Your task to perform on an android device: open chrome and create a bookmark for the current page Image 0: 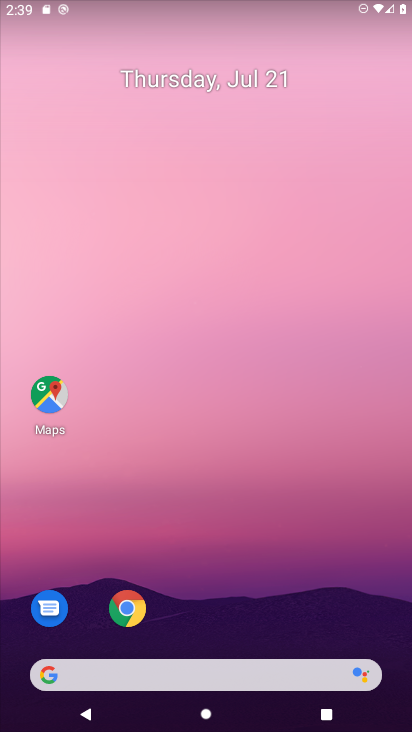
Step 0: click (124, 609)
Your task to perform on an android device: open chrome and create a bookmark for the current page Image 1: 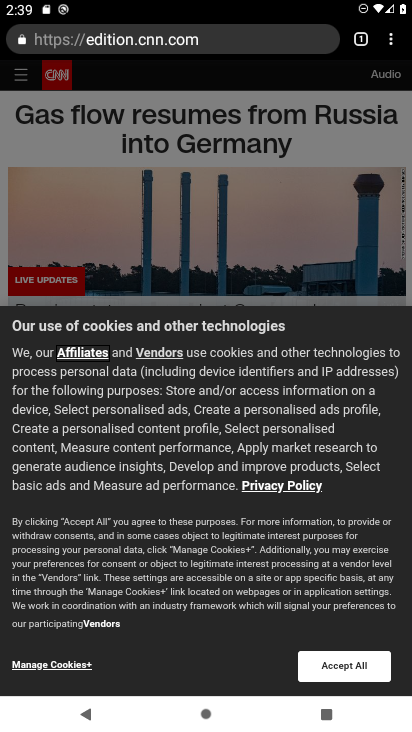
Step 1: click (398, 35)
Your task to perform on an android device: open chrome and create a bookmark for the current page Image 2: 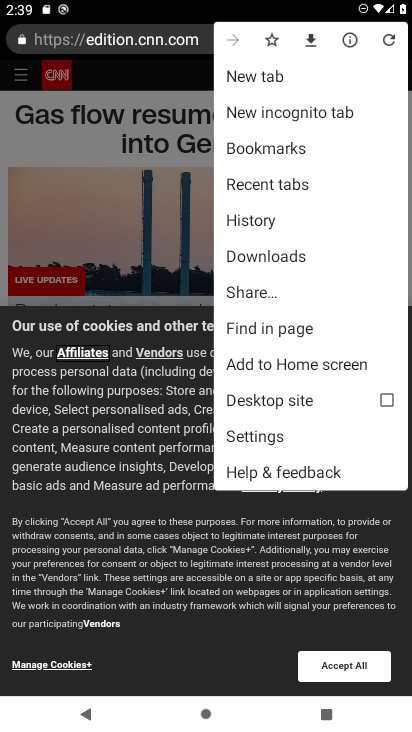
Step 2: click (102, 122)
Your task to perform on an android device: open chrome and create a bookmark for the current page Image 3: 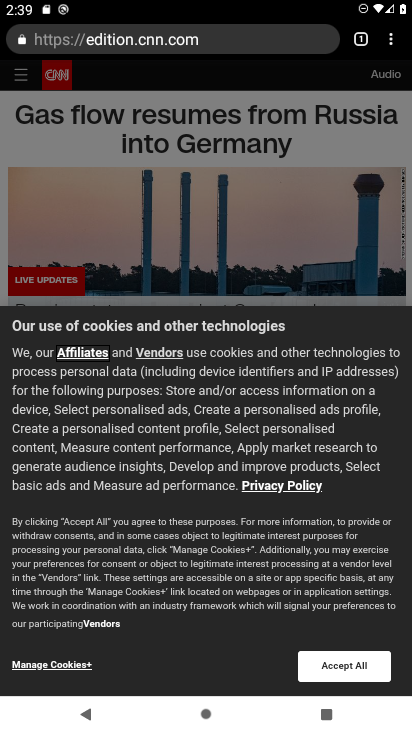
Step 3: click (387, 38)
Your task to perform on an android device: open chrome and create a bookmark for the current page Image 4: 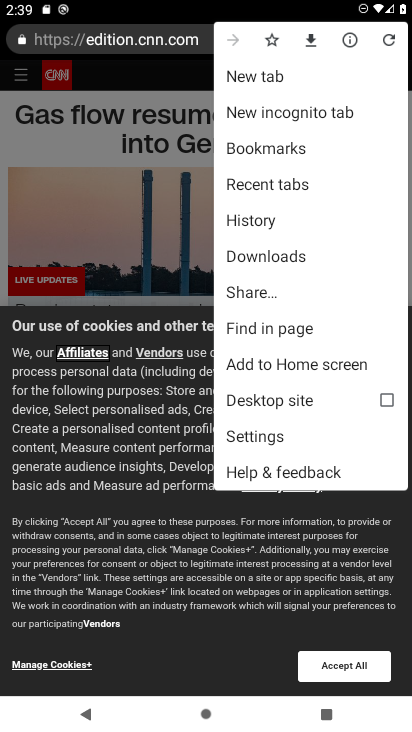
Step 4: click (275, 47)
Your task to perform on an android device: open chrome and create a bookmark for the current page Image 5: 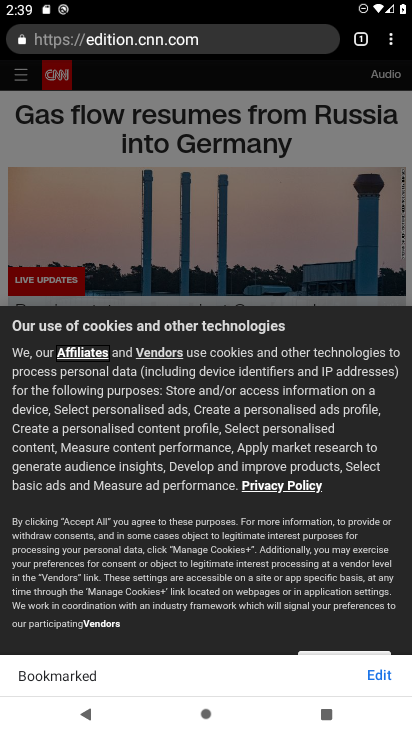
Step 5: task complete